Your task to perform on an android device: Do I have any events this weekend? Image 0: 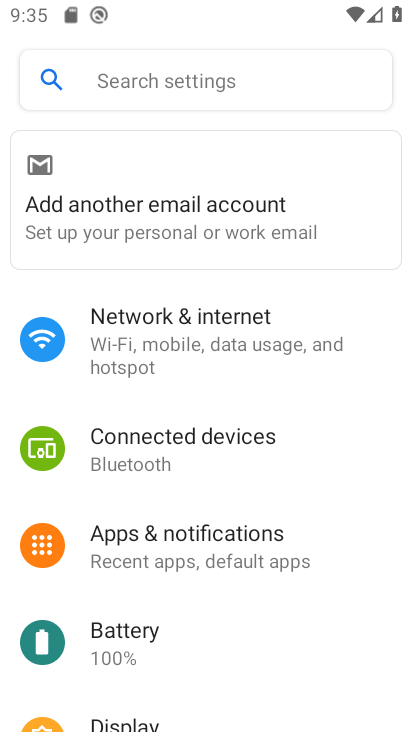
Step 0: press home button
Your task to perform on an android device: Do I have any events this weekend? Image 1: 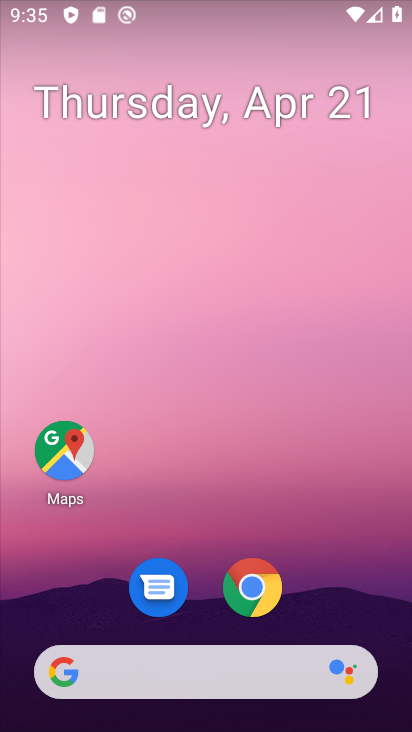
Step 1: drag from (334, 539) to (342, 77)
Your task to perform on an android device: Do I have any events this weekend? Image 2: 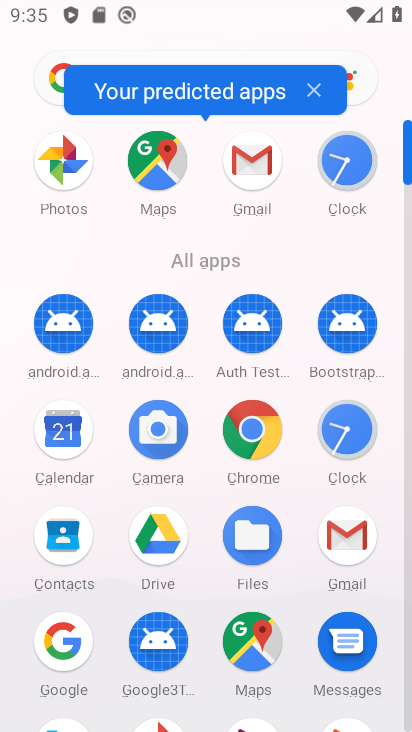
Step 2: drag from (388, 591) to (398, 295)
Your task to perform on an android device: Do I have any events this weekend? Image 3: 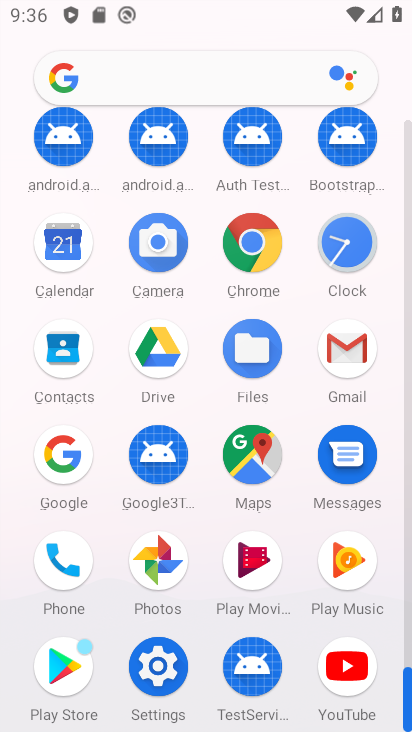
Step 3: click (57, 253)
Your task to perform on an android device: Do I have any events this weekend? Image 4: 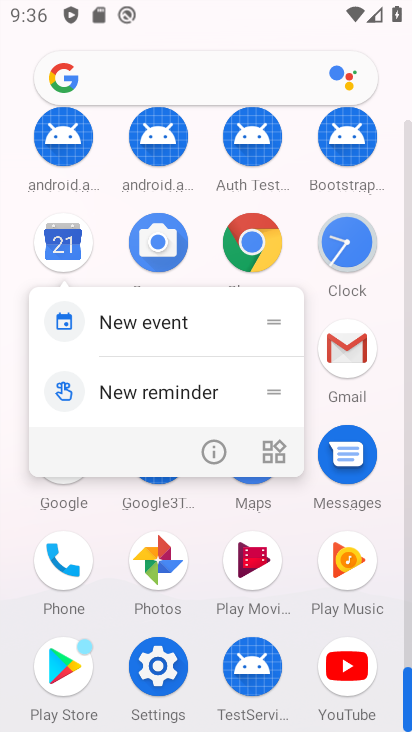
Step 4: click (56, 254)
Your task to perform on an android device: Do I have any events this weekend? Image 5: 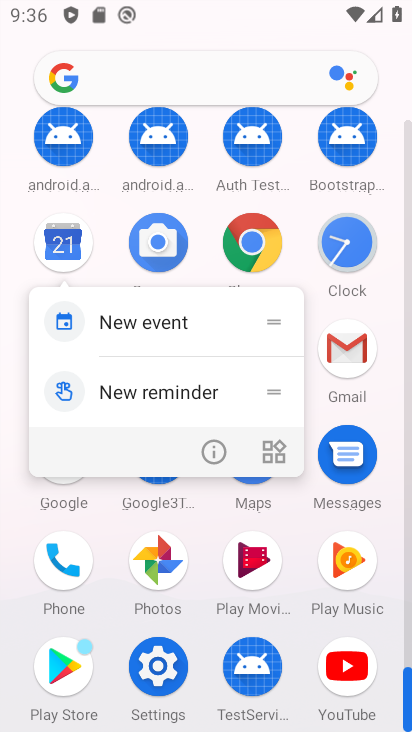
Step 5: click (57, 255)
Your task to perform on an android device: Do I have any events this weekend? Image 6: 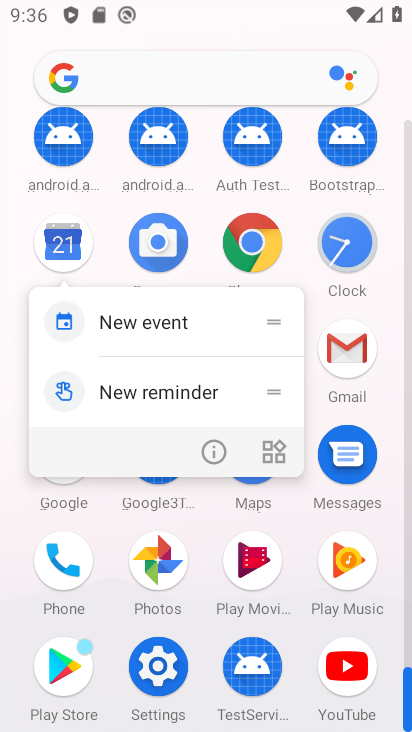
Step 6: click (58, 256)
Your task to perform on an android device: Do I have any events this weekend? Image 7: 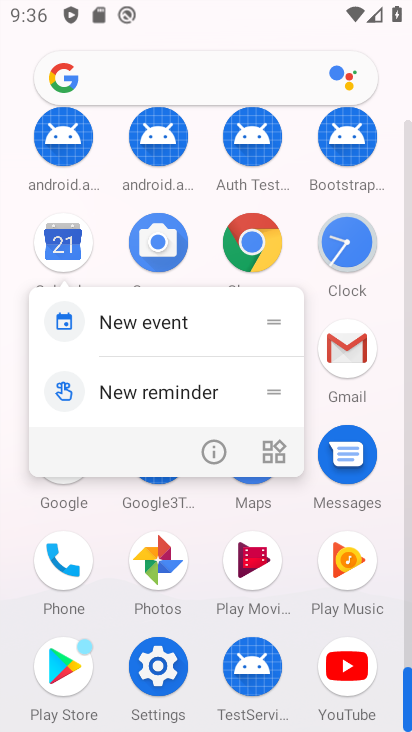
Step 7: click (58, 257)
Your task to perform on an android device: Do I have any events this weekend? Image 8: 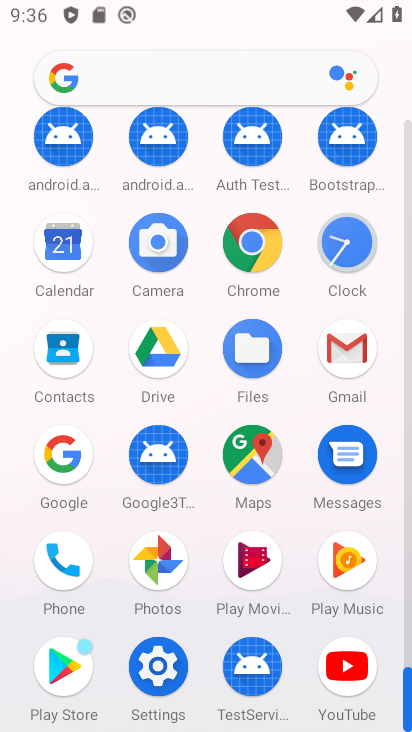
Step 8: click (49, 246)
Your task to perform on an android device: Do I have any events this weekend? Image 9: 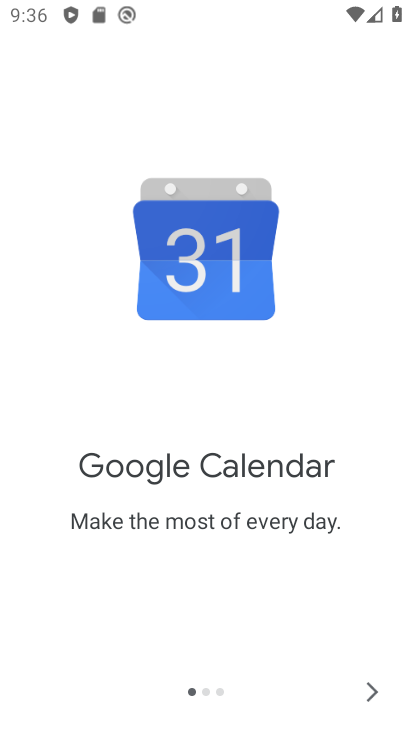
Step 9: click (369, 697)
Your task to perform on an android device: Do I have any events this weekend? Image 10: 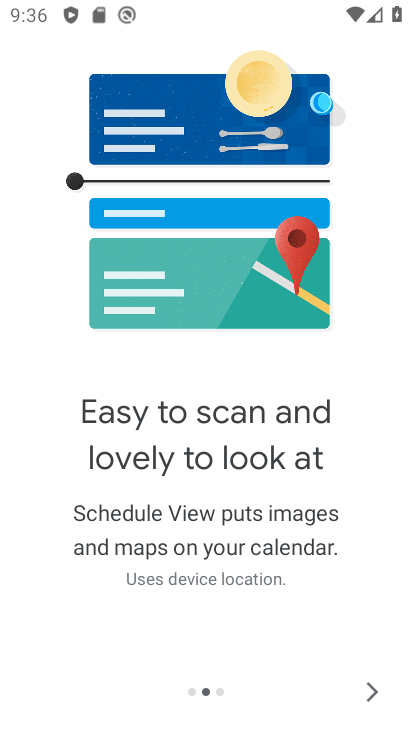
Step 10: click (375, 695)
Your task to perform on an android device: Do I have any events this weekend? Image 11: 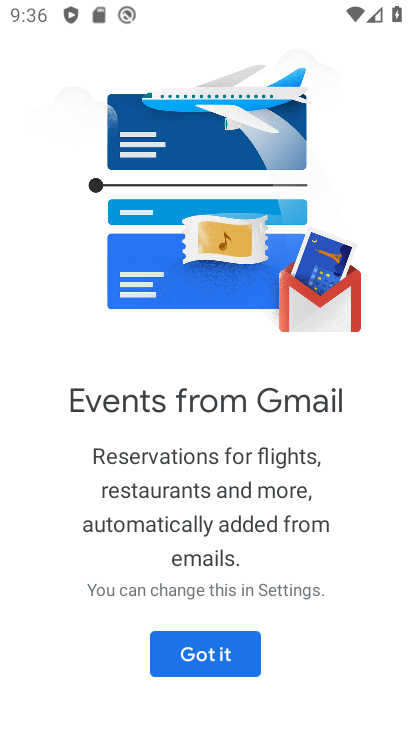
Step 11: click (369, 694)
Your task to perform on an android device: Do I have any events this weekend? Image 12: 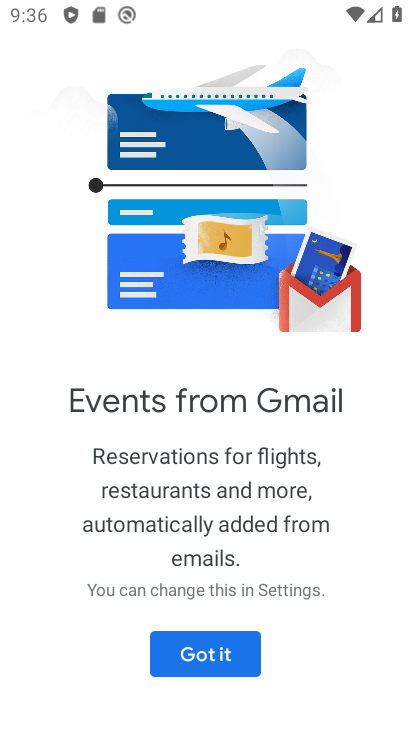
Step 12: click (220, 652)
Your task to perform on an android device: Do I have any events this weekend? Image 13: 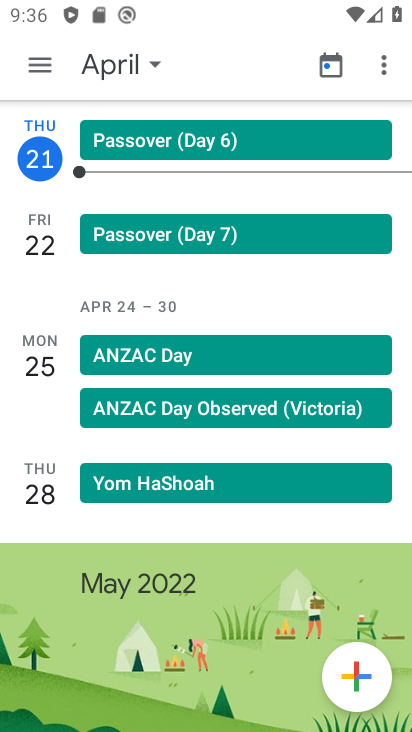
Step 13: click (150, 57)
Your task to perform on an android device: Do I have any events this weekend? Image 14: 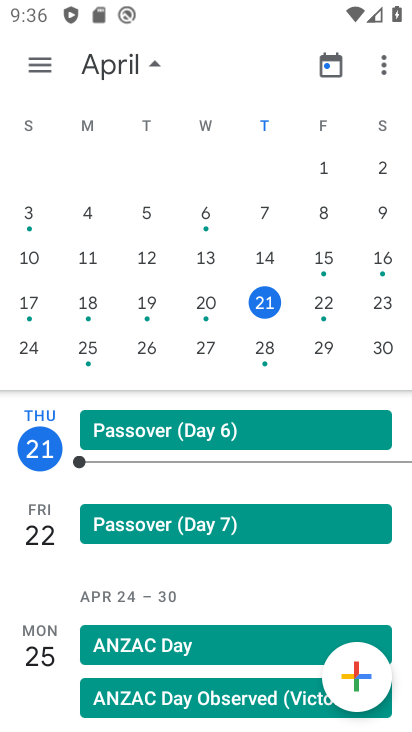
Step 14: click (383, 301)
Your task to perform on an android device: Do I have any events this weekend? Image 15: 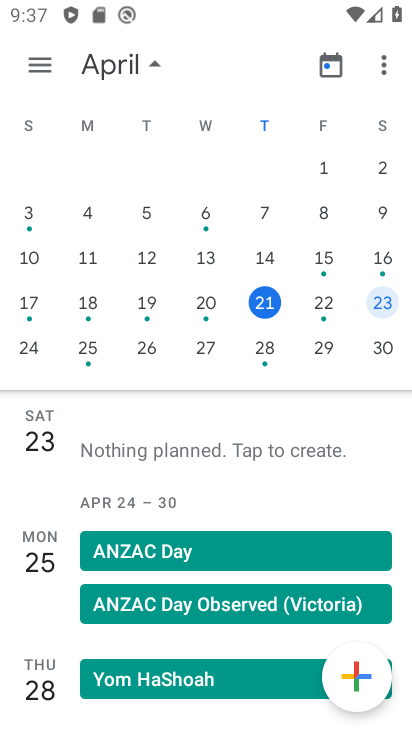
Step 15: click (199, 452)
Your task to perform on an android device: Do I have any events this weekend? Image 16: 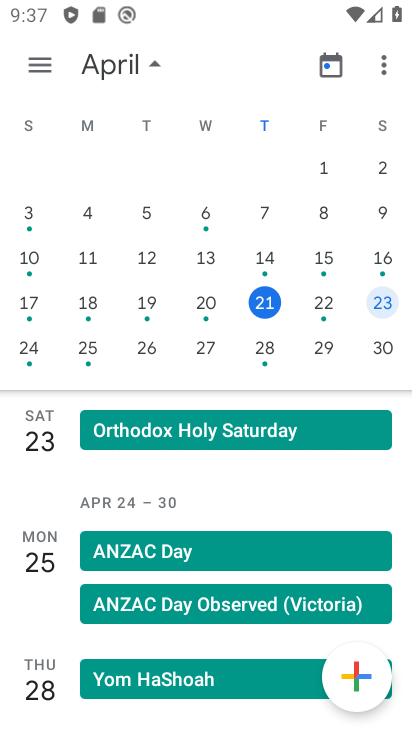
Step 16: click (42, 67)
Your task to perform on an android device: Do I have any events this weekend? Image 17: 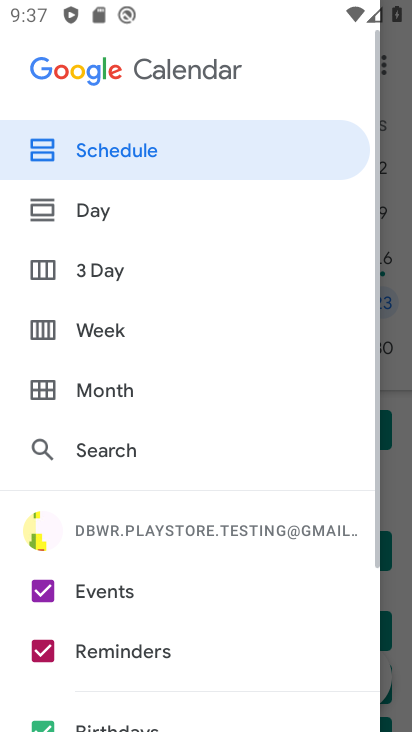
Step 17: drag from (226, 609) to (252, 275)
Your task to perform on an android device: Do I have any events this weekend? Image 18: 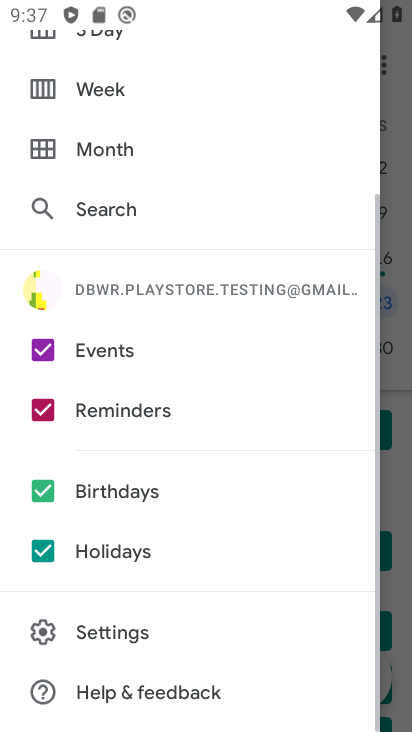
Step 18: click (45, 409)
Your task to perform on an android device: Do I have any events this weekend? Image 19: 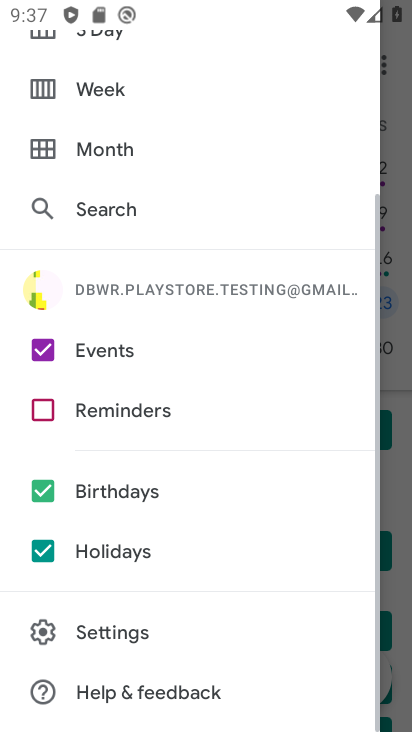
Step 19: click (38, 505)
Your task to perform on an android device: Do I have any events this weekend? Image 20: 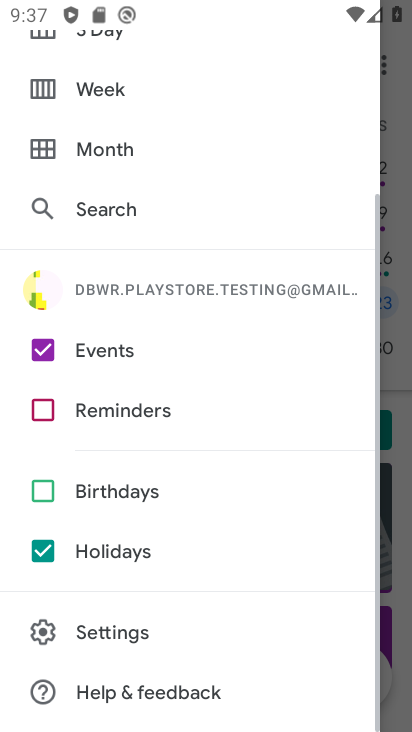
Step 20: click (39, 556)
Your task to perform on an android device: Do I have any events this weekend? Image 21: 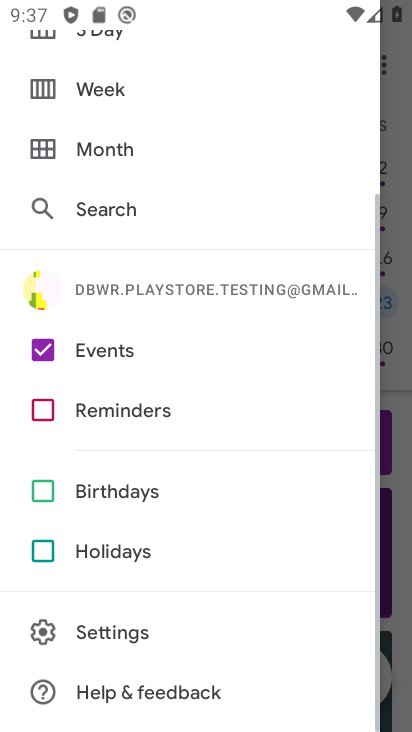
Step 21: drag from (292, 179) to (260, 526)
Your task to perform on an android device: Do I have any events this weekend? Image 22: 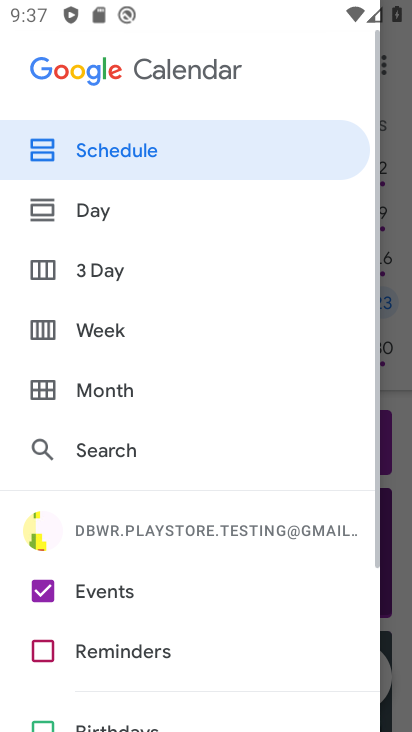
Step 22: click (169, 150)
Your task to perform on an android device: Do I have any events this weekend? Image 23: 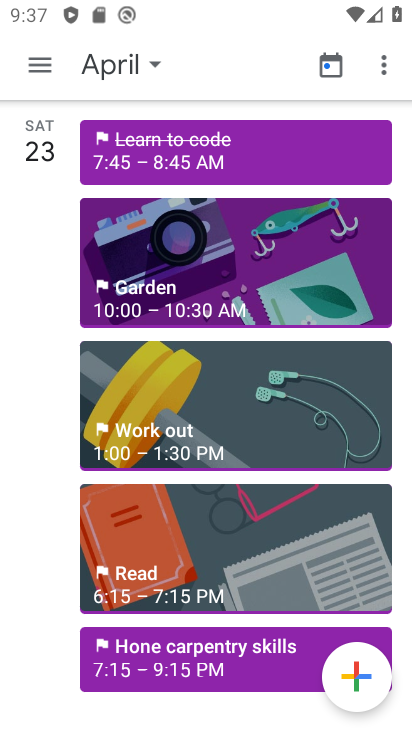
Step 23: task complete